Your task to perform on an android device: Do I have any events today? Image 0: 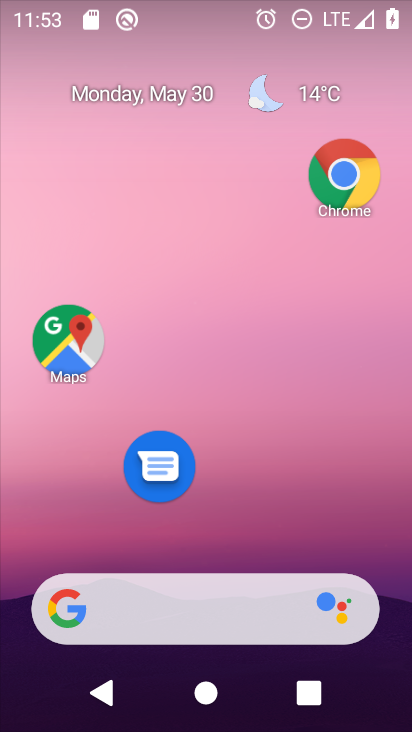
Step 0: click (163, 89)
Your task to perform on an android device: Do I have any events today? Image 1: 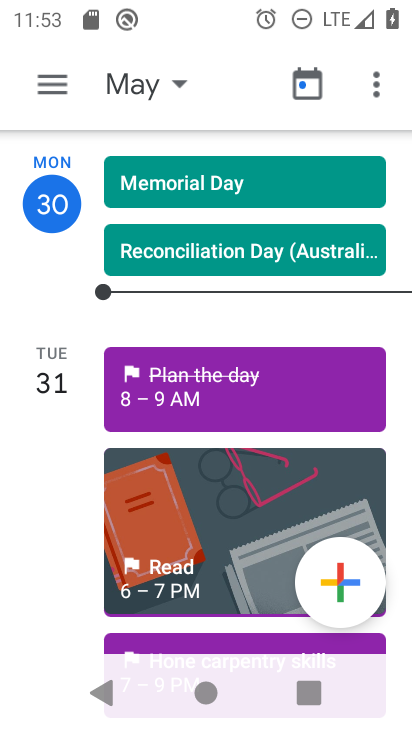
Step 1: task complete